Your task to perform on an android device: Show me popular games on the Play Store Image 0: 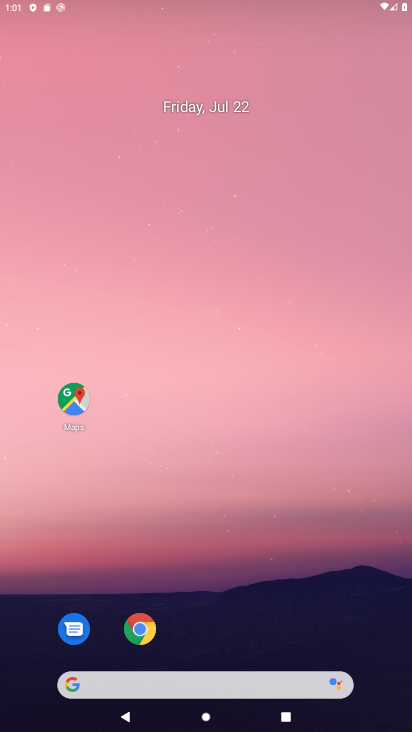
Step 0: press home button
Your task to perform on an android device: Show me popular games on the Play Store Image 1: 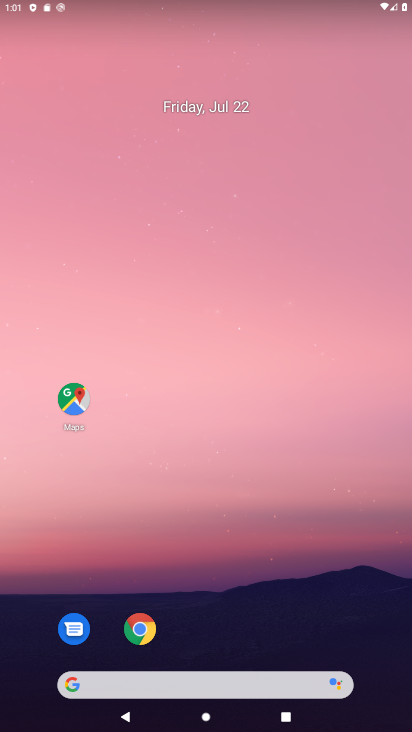
Step 1: drag from (286, 587) to (274, 168)
Your task to perform on an android device: Show me popular games on the Play Store Image 2: 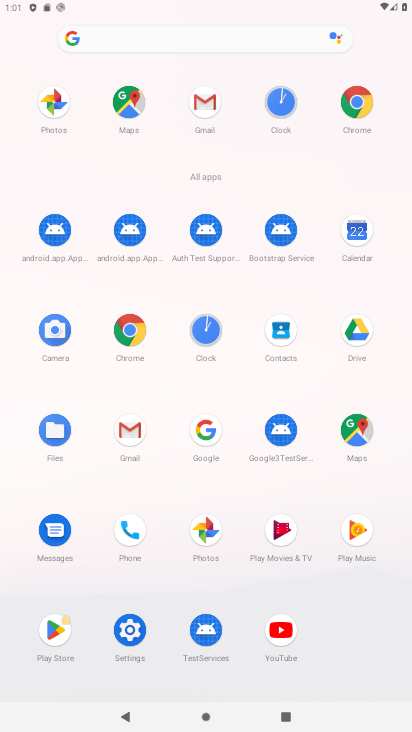
Step 2: click (48, 648)
Your task to perform on an android device: Show me popular games on the Play Store Image 3: 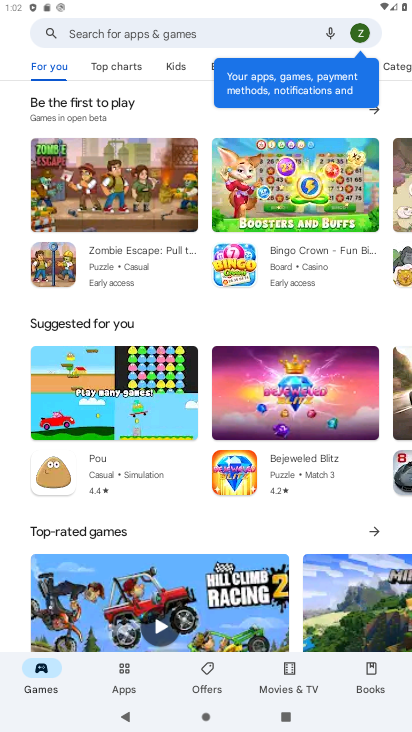
Step 3: click (368, 536)
Your task to perform on an android device: Show me popular games on the Play Store Image 4: 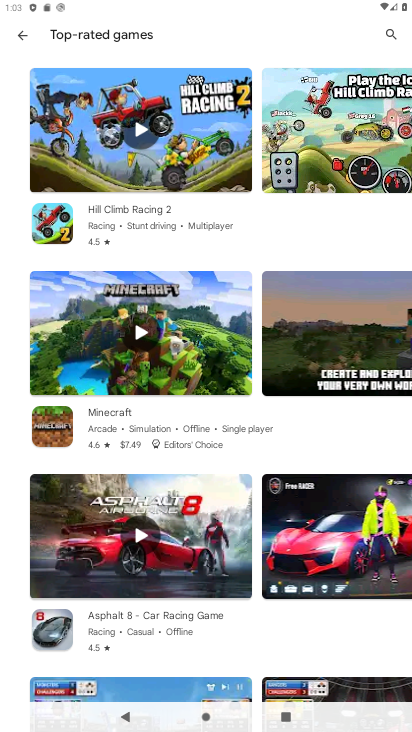
Step 4: task complete